Your task to perform on an android device: uninstall "Messages" Image 0: 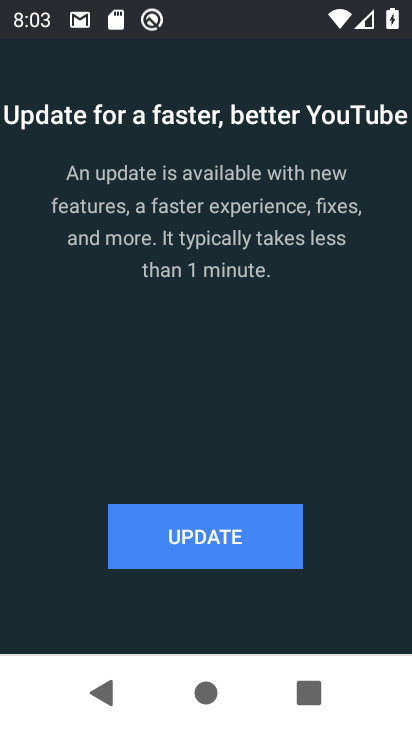
Step 0: press home button
Your task to perform on an android device: uninstall "Messages" Image 1: 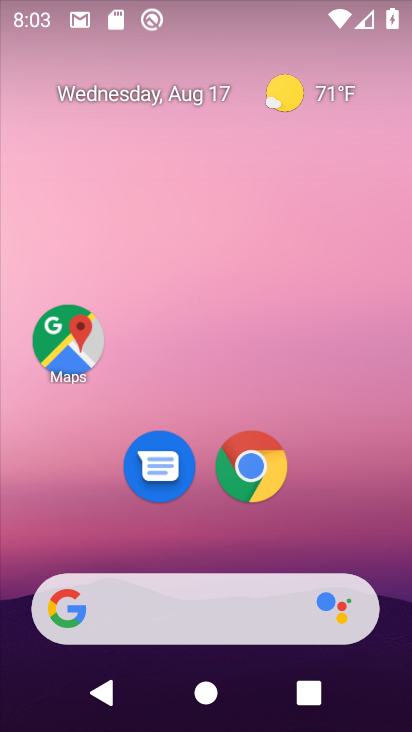
Step 1: drag from (220, 515) to (321, 11)
Your task to perform on an android device: uninstall "Messages" Image 2: 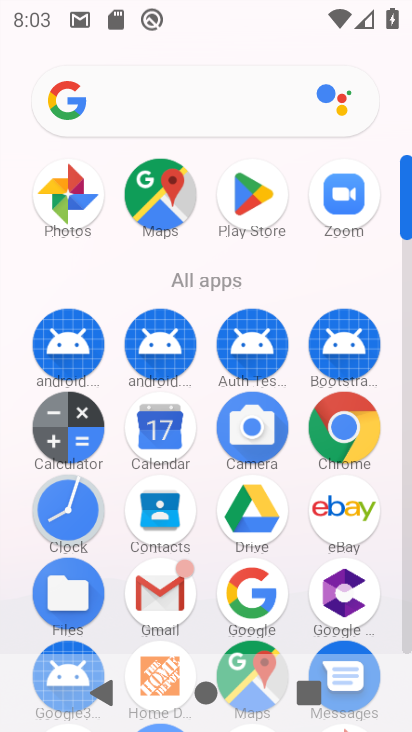
Step 2: click (257, 202)
Your task to perform on an android device: uninstall "Messages" Image 3: 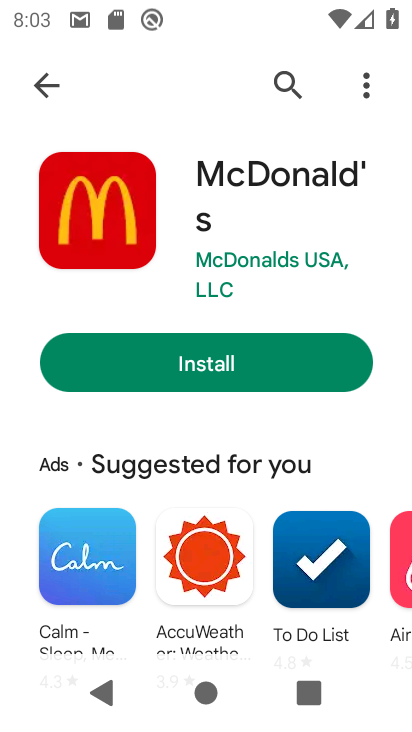
Step 3: click (36, 80)
Your task to perform on an android device: uninstall "Messages" Image 4: 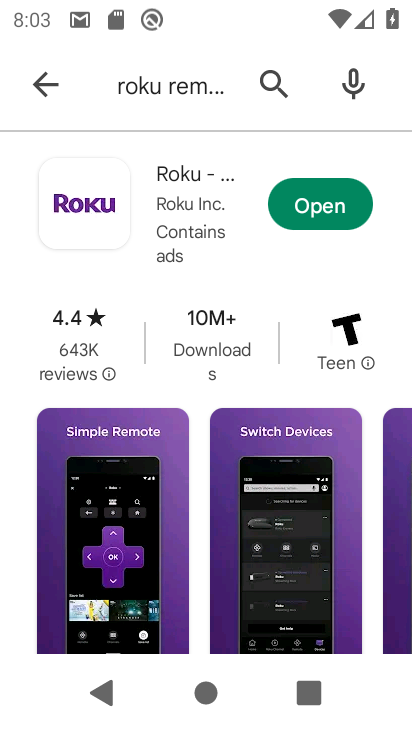
Step 4: click (169, 88)
Your task to perform on an android device: uninstall "Messages" Image 5: 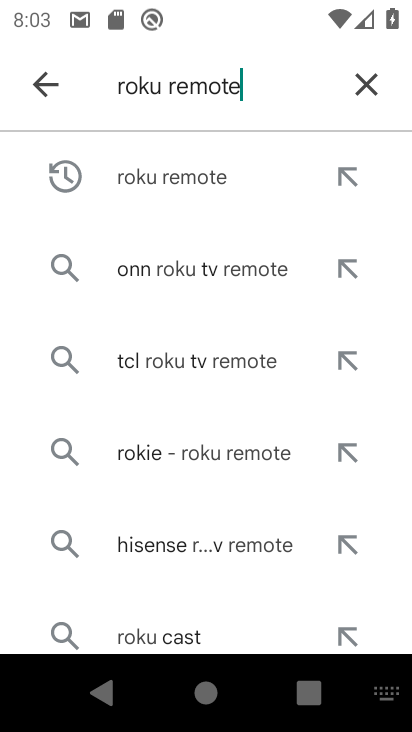
Step 5: click (370, 76)
Your task to perform on an android device: uninstall "Messages" Image 6: 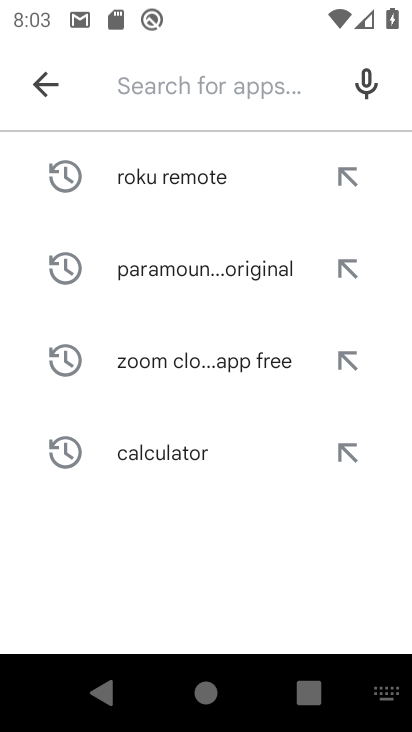
Step 6: type "messages"
Your task to perform on an android device: uninstall "Messages" Image 7: 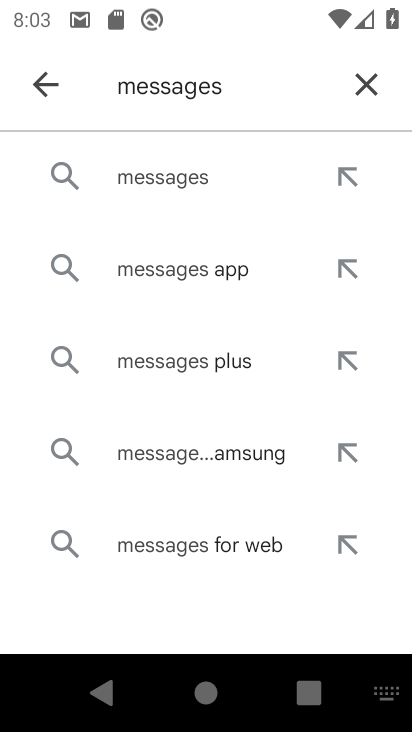
Step 7: click (212, 182)
Your task to perform on an android device: uninstall "Messages" Image 8: 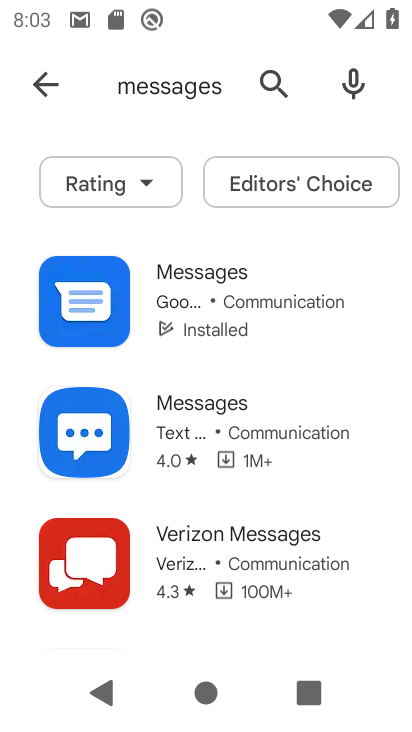
Step 8: click (88, 302)
Your task to perform on an android device: uninstall "Messages" Image 9: 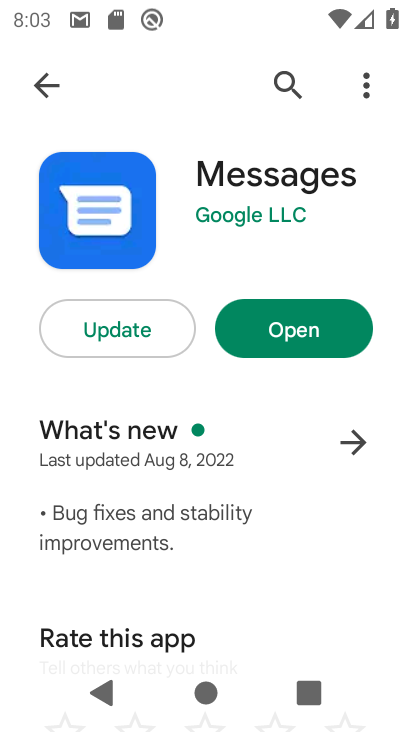
Step 9: click (138, 327)
Your task to perform on an android device: uninstall "Messages" Image 10: 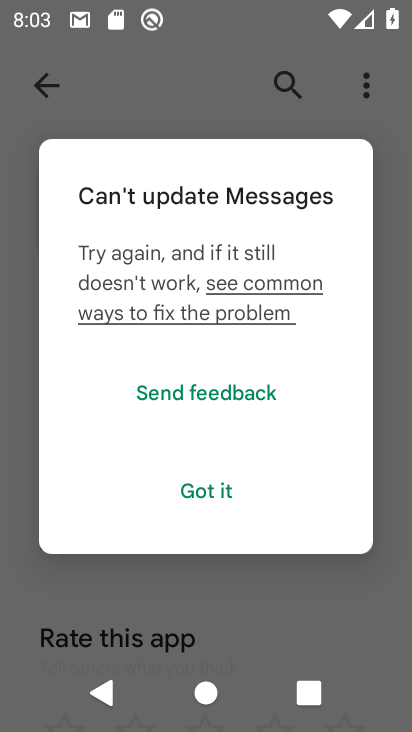
Step 10: click (146, 322)
Your task to perform on an android device: uninstall "Messages" Image 11: 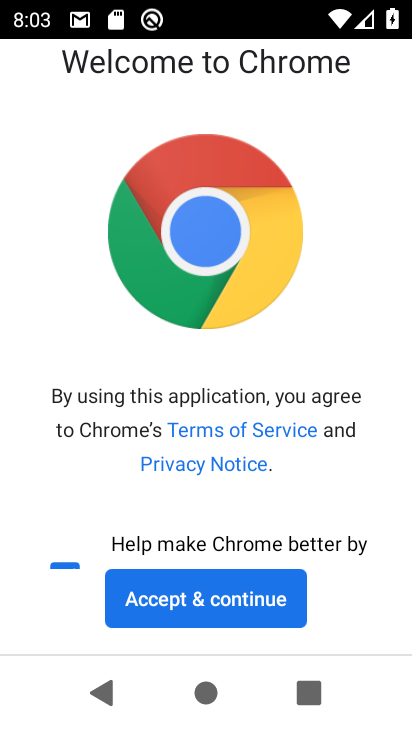
Step 11: task complete